Your task to perform on an android device: Search for sushi restaurants on Maps Image 0: 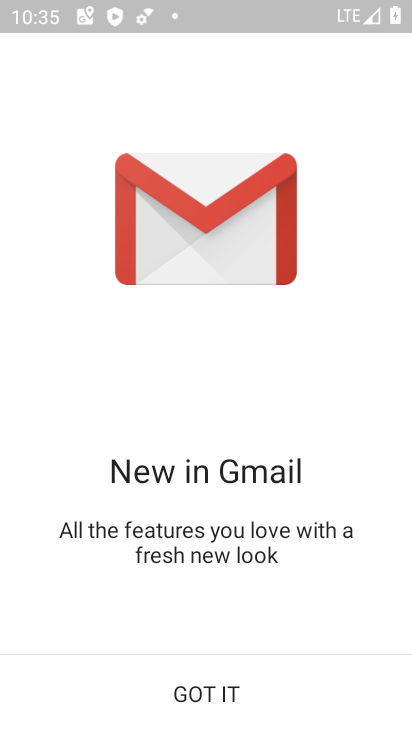
Step 0: press home button
Your task to perform on an android device: Search for sushi restaurants on Maps Image 1: 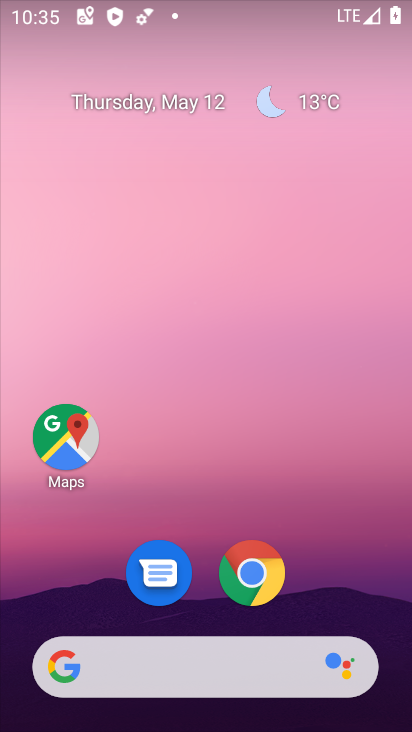
Step 1: click (60, 406)
Your task to perform on an android device: Search for sushi restaurants on Maps Image 2: 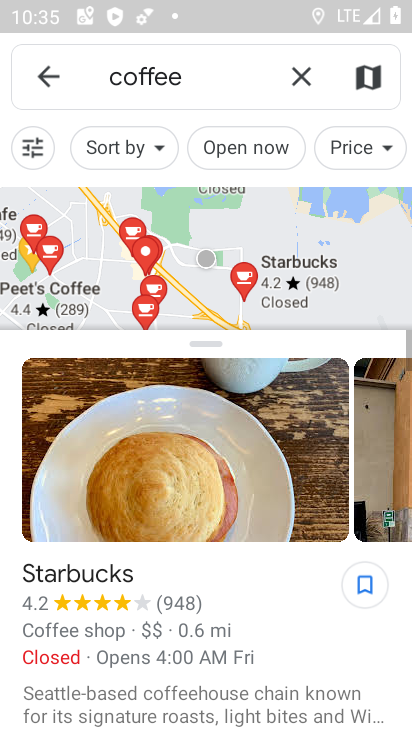
Step 2: click (305, 68)
Your task to perform on an android device: Search for sushi restaurants on Maps Image 3: 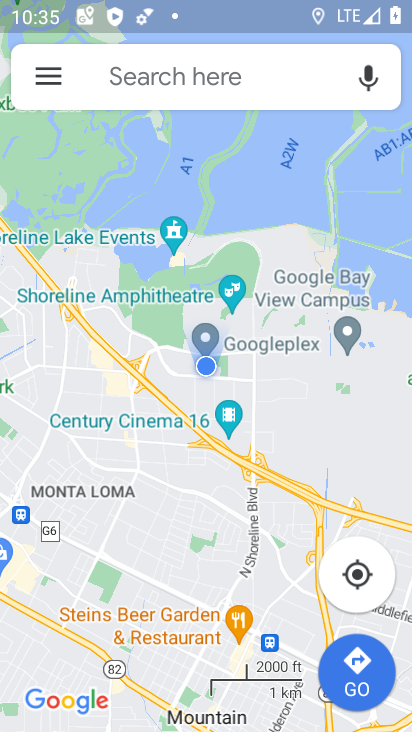
Step 3: click (179, 92)
Your task to perform on an android device: Search for sushi restaurants on Maps Image 4: 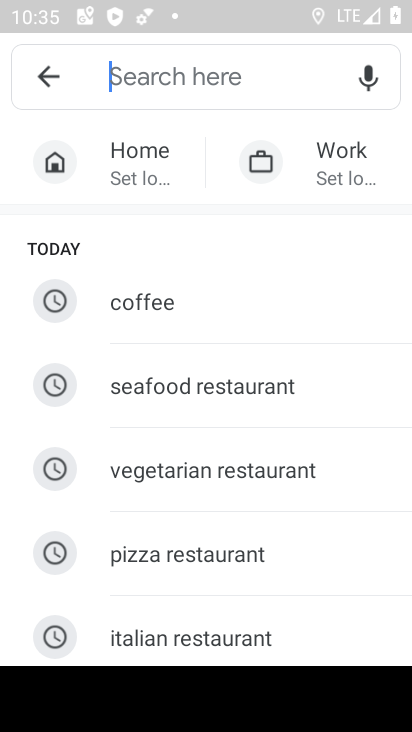
Step 4: type "sushi restuarant"
Your task to perform on an android device: Search for sushi restaurants on Maps Image 5: 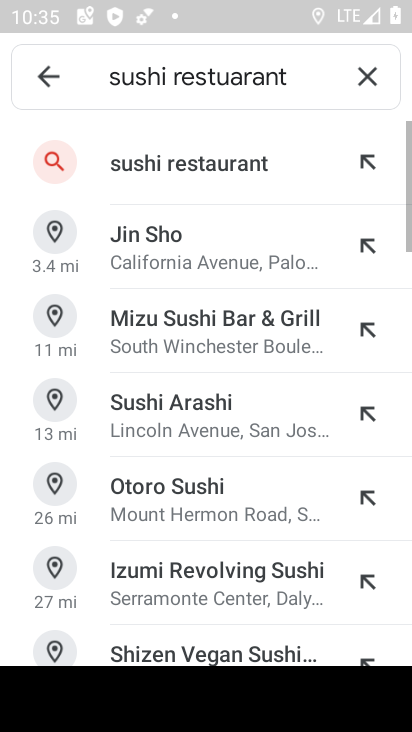
Step 5: click (231, 175)
Your task to perform on an android device: Search for sushi restaurants on Maps Image 6: 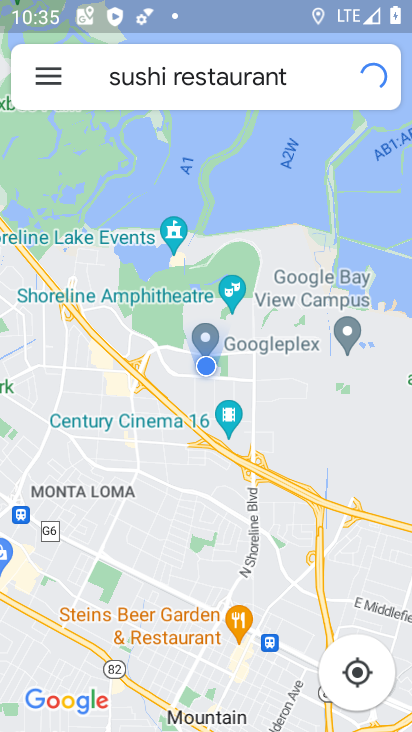
Step 6: task complete